Your task to perform on an android device: change timer sound Image 0: 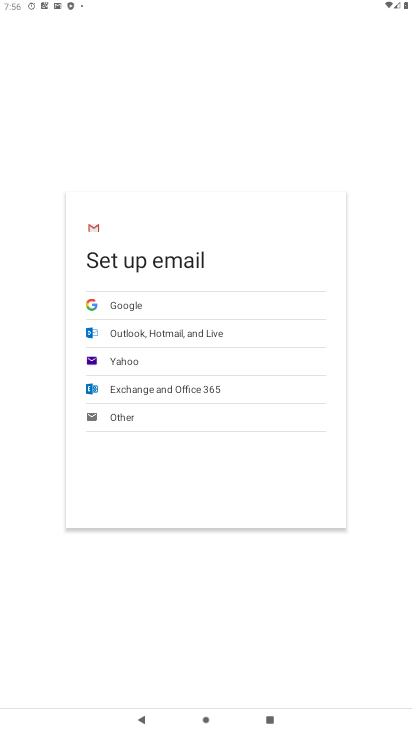
Step 0: press home button
Your task to perform on an android device: change timer sound Image 1: 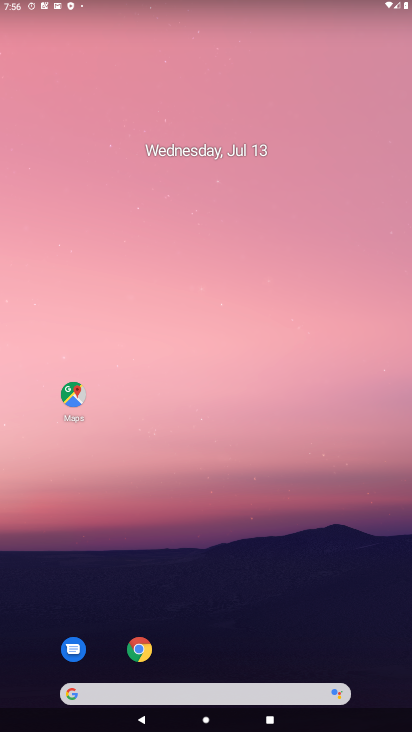
Step 1: drag from (215, 639) to (255, 164)
Your task to perform on an android device: change timer sound Image 2: 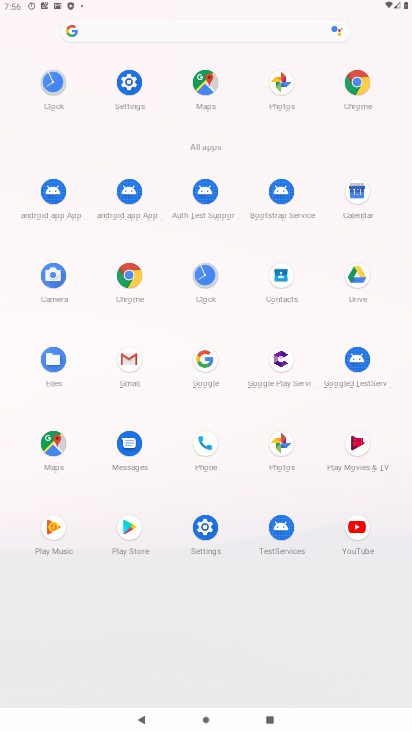
Step 2: click (198, 276)
Your task to perform on an android device: change timer sound Image 3: 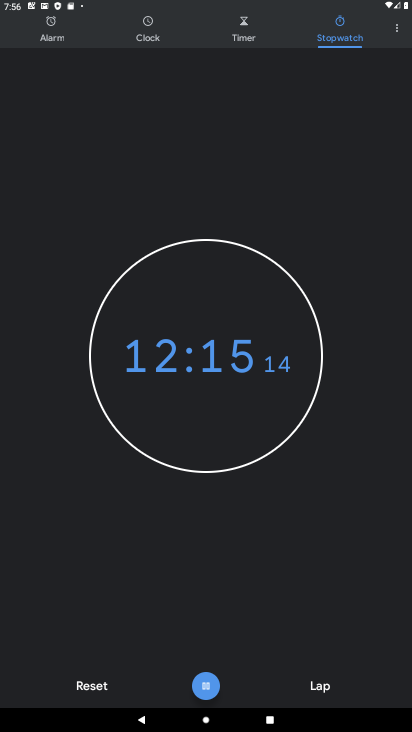
Step 3: click (392, 22)
Your task to perform on an android device: change timer sound Image 4: 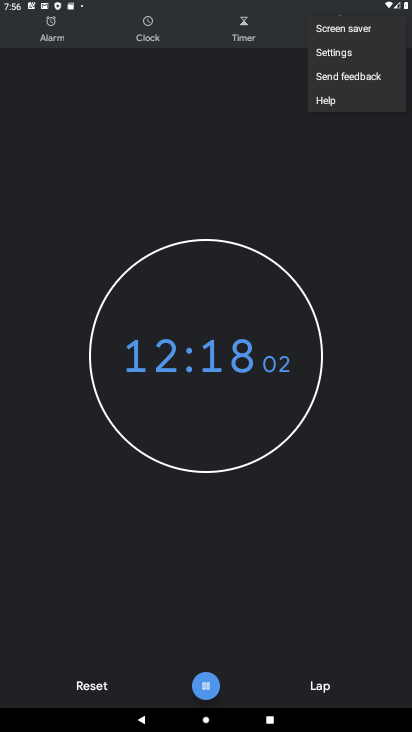
Step 4: click (336, 59)
Your task to perform on an android device: change timer sound Image 5: 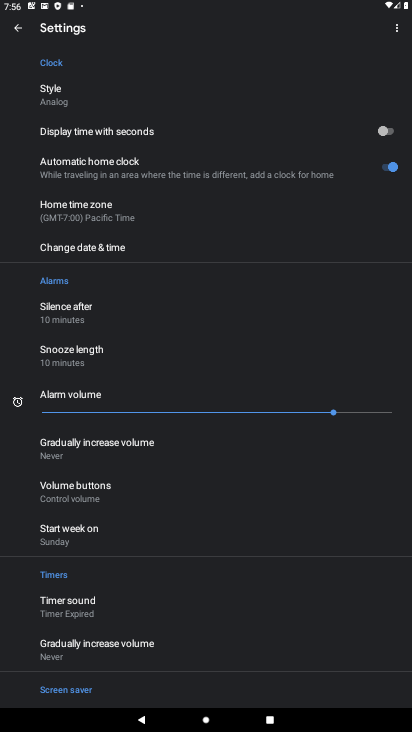
Step 5: click (106, 610)
Your task to perform on an android device: change timer sound Image 6: 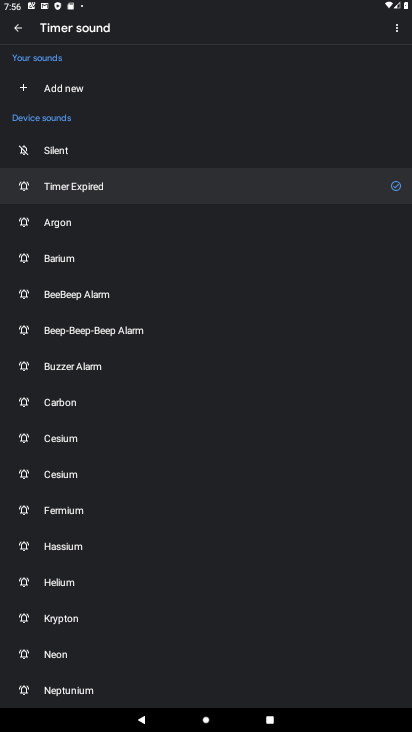
Step 6: click (59, 233)
Your task to perform on an android device: change timer sound Image 7: 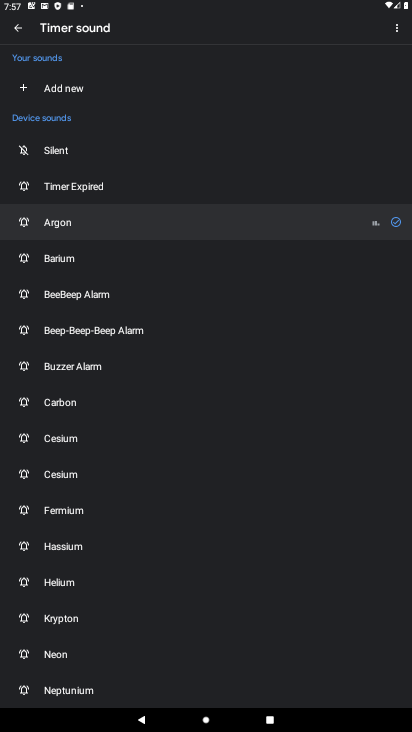
Step 7: task complete